Your task to perform on an android device: Open location settings Image 0: 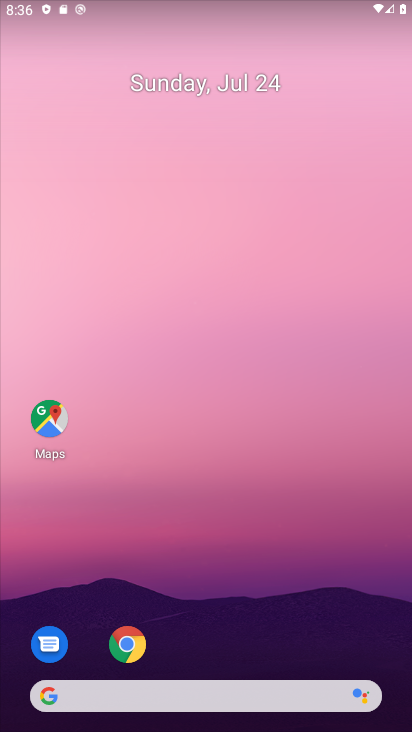
Step 0: drag from (245, 436) to (252, 258)
Your task to perform on an android device: Open location settings Image 1: 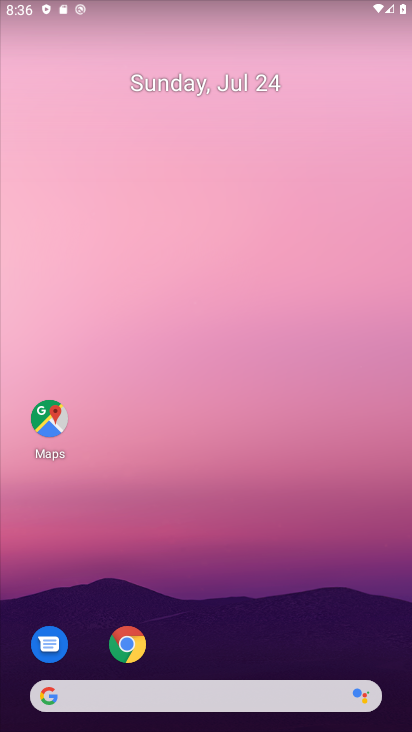
Step 1: drag from (272, 531) to (272, 223)
Your task to perform on an android device: Open location settings Image 2: 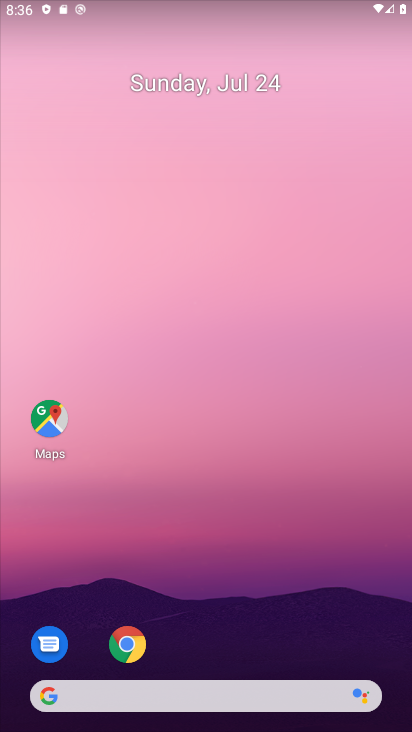
Step 2: drag from (279, 625) to (214, 170)
Your task to perform on an android device: Open location settings Image 3: 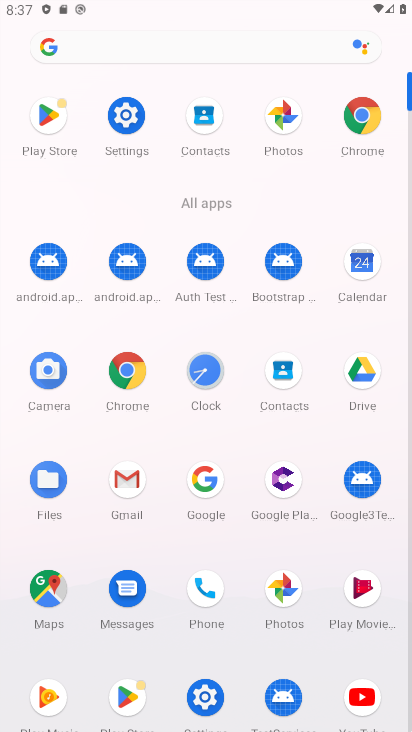
Step 3: click (112, 108)
Your task to perform on an android device: Open location settings Image 4: 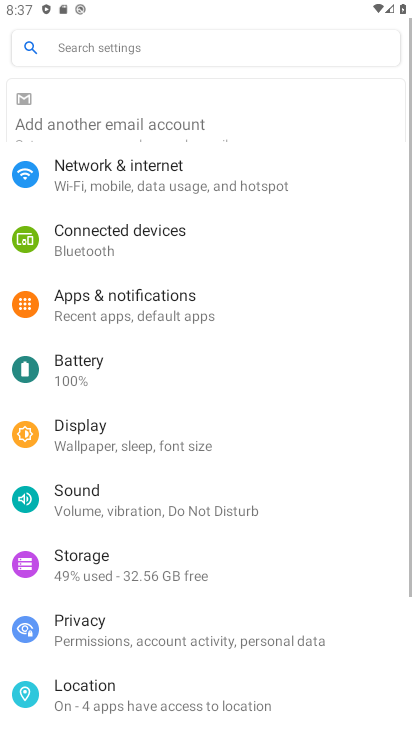
Step 4: click (114, 108)
Your task to perform on an android device: Open location settings Image 5: 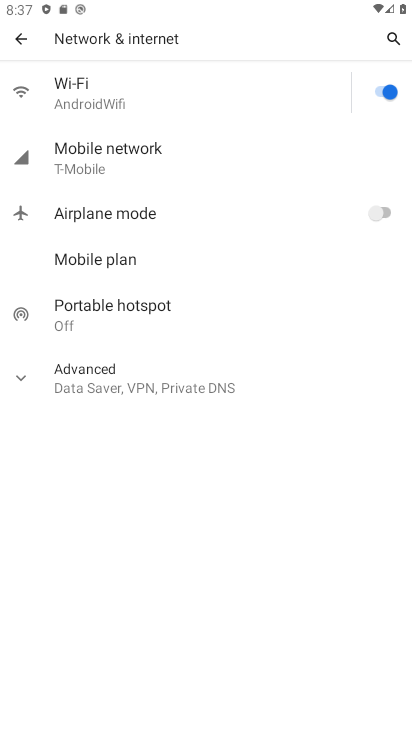
Step 5: click (18, 31)
Your task to perform on an android device: Open location settings Image 6: 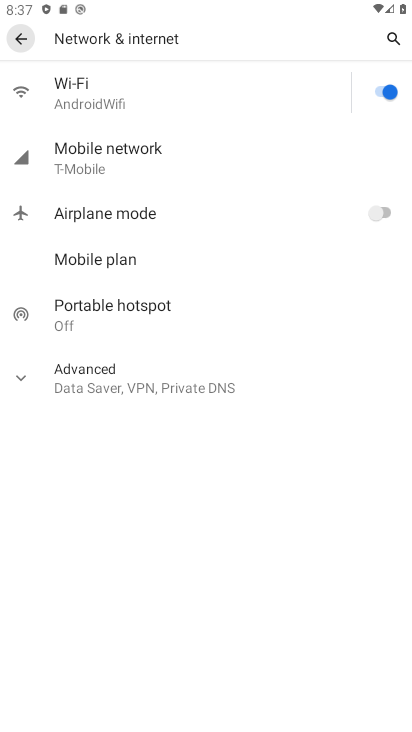
Step 6: click (14, 31)
Your task to perform on an android device: Open location settings Image 7: 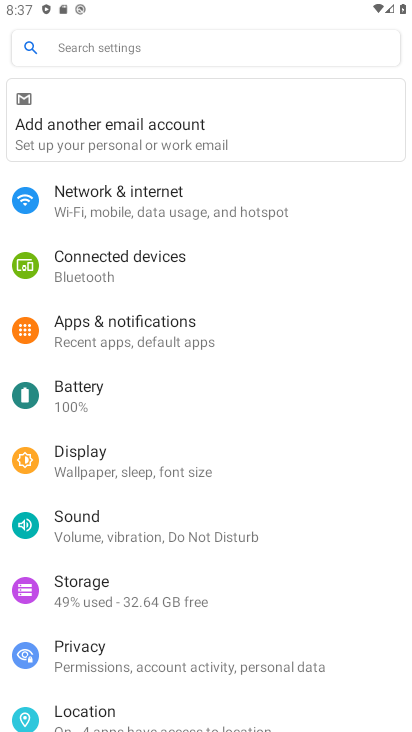
Step 7: drag from (90, 370) to (90, 292)
Your task to perform on an android device: Open location settings Image 8: 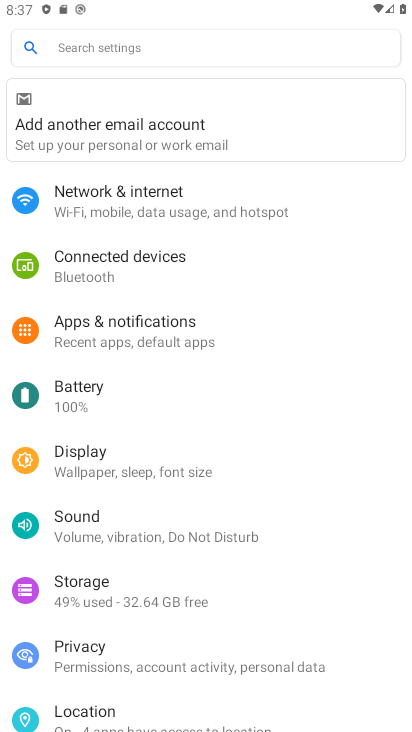
Step 8: drag from (106, 599) to (131, 331)
Your task to perform on an android device: Open location settings Image 9: 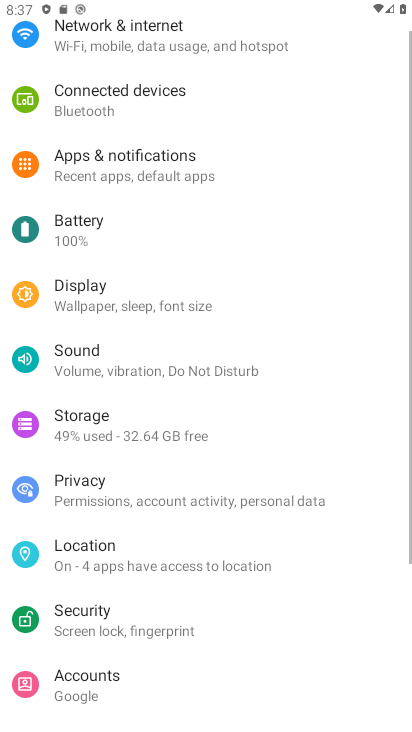
Step 9: drag from (139, 576) to (165, 372)
Your task to perform on an android device: Open location settings Image 10: 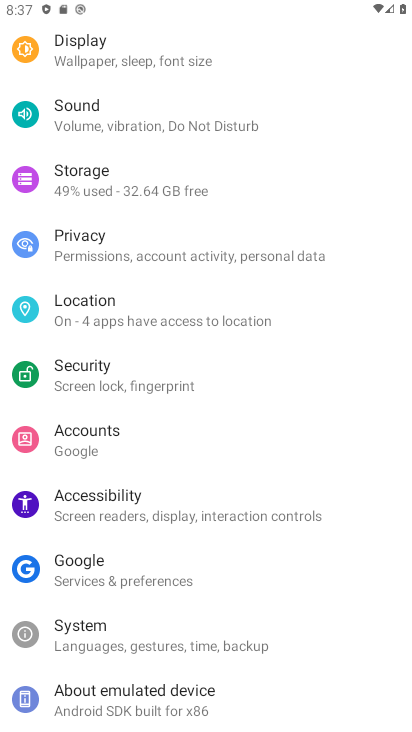
Step 10: click (87, 319)
Your task to perform on an android device: Open location settings Image 11: 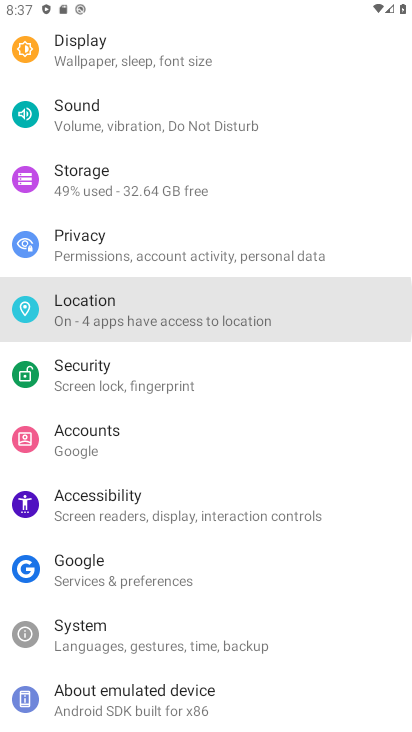
Step 11: click (87, 319)
Your task to perform on an android device: Open location settings Image 12: 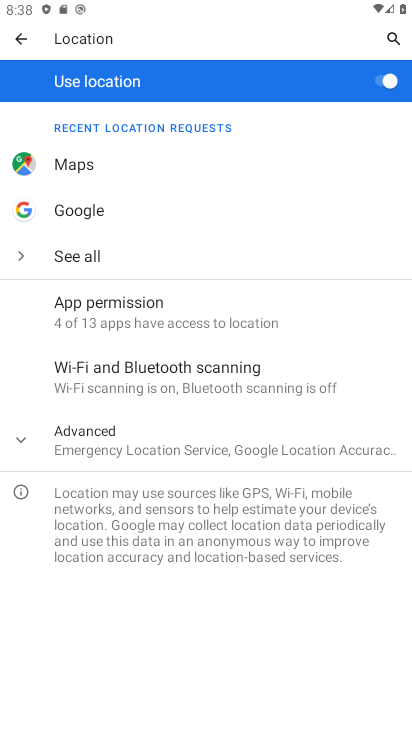
Step 12: click (102, 435)
Your task to perform on an android device: Open location settings Image 13: 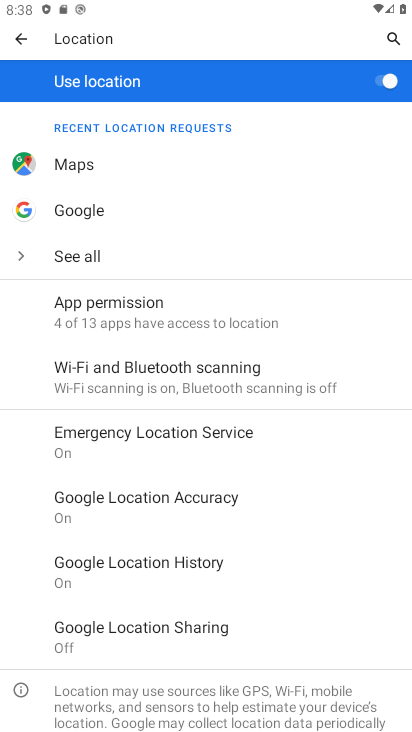
Step 13: task complete